Your task to perform on an android device: toggle translation in the chrome app Image 0: 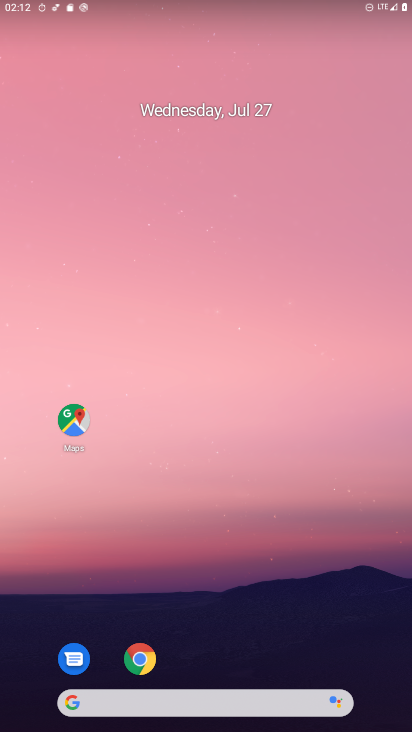
Step 0: click (262, 354)
Your task to perform on an android device: toggle translation in the chrome app Image 1: 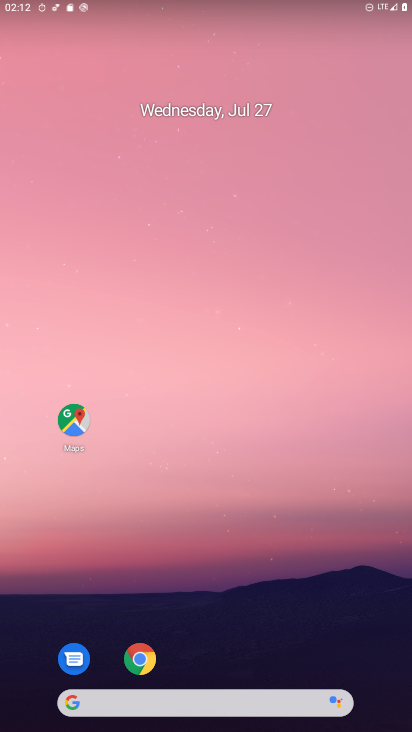
Step 1: drag from (215, 533) to (224, 65)
Your task to perform on an android device: toggle translation in the chrome app Image 2: 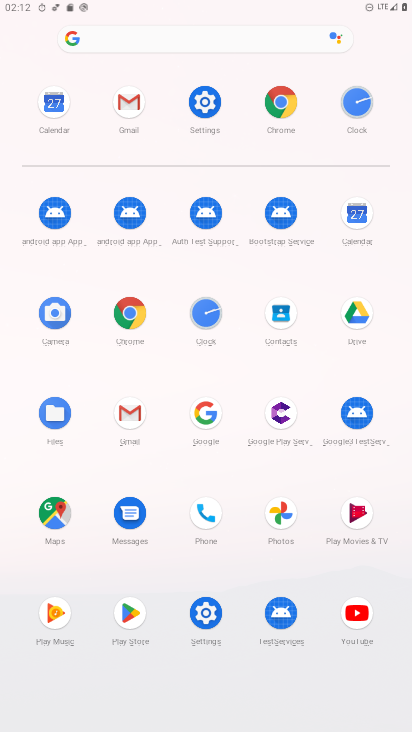
Step 2: click (275, 104)
Your task to perform on an android device: toggle translation in the chrome app Image 3: 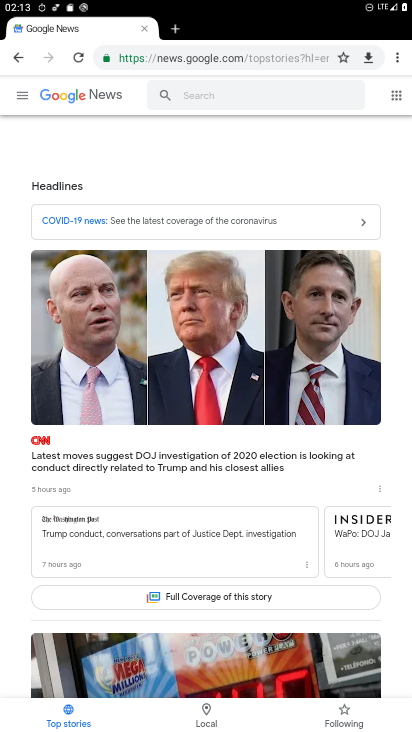
Step 3: drag from (399, 58) to (286, 378)
Your task to perform on an android device: toggle translation in the chrome app Image 4: 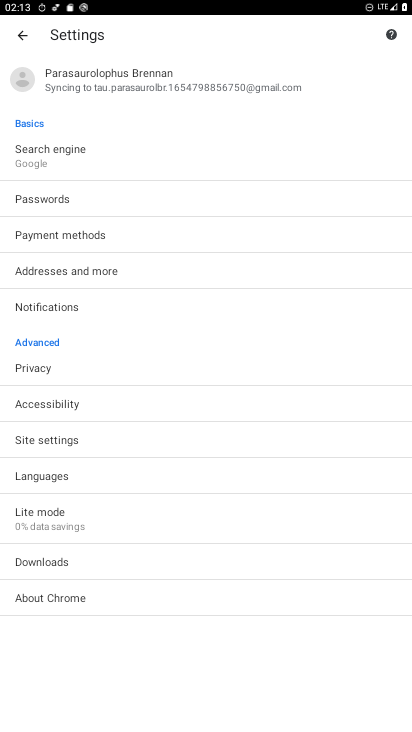
Step 4: click (71, 479)
Your task to perform on an android device: toggle translation in the chrome app Image 5: 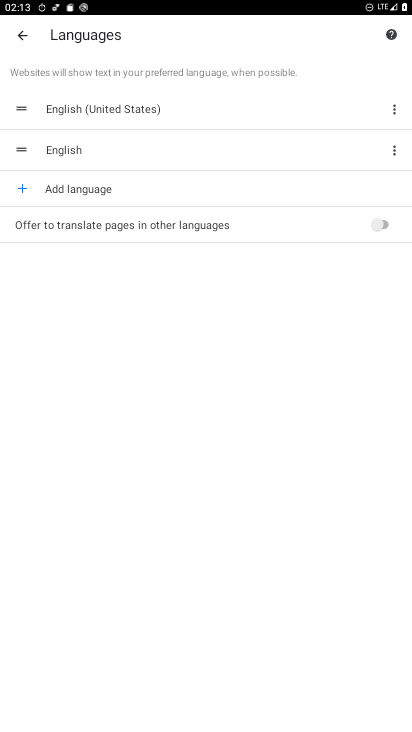
Step 5: click (286, 230)
Your task to perform on an android device: toggle translation in the chrome app Image 6: 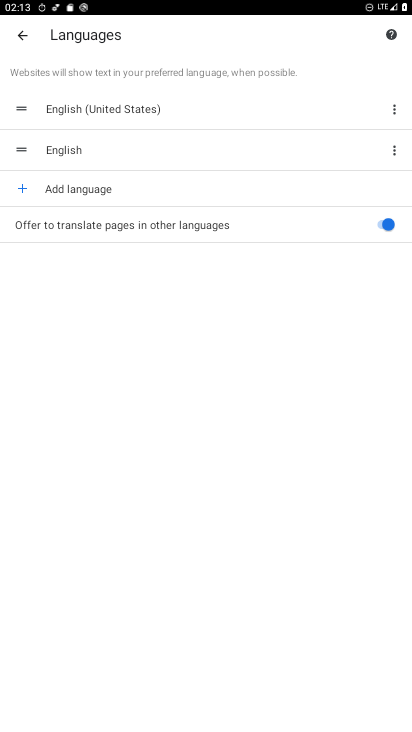
Step 6: task complete